Your task to perform on an android device: Go to privacy settings Image 0: 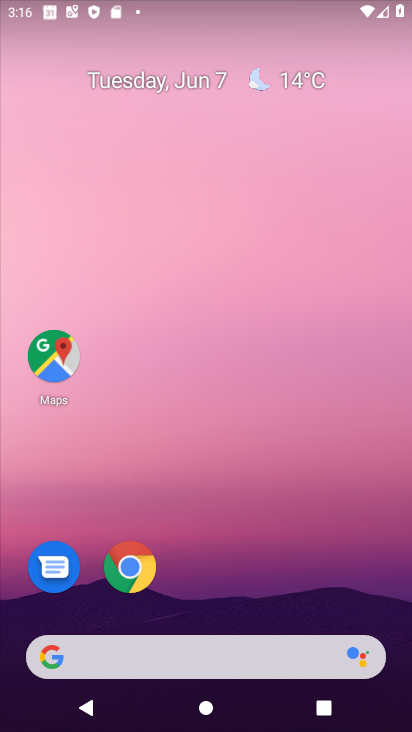
Step 0: drag from (196, 607) to (190, 241)
Your task to perform on an android device: Go to privacy settings Image 1: 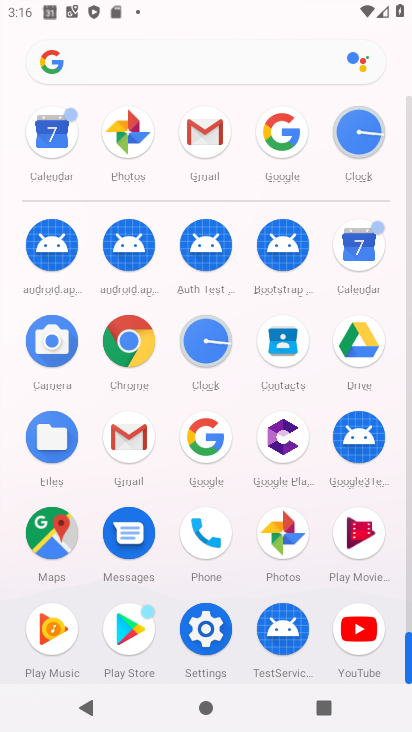
Step 1: click (202, 612)
Your task to perform on an android device: Go to privacy settings Image 2: 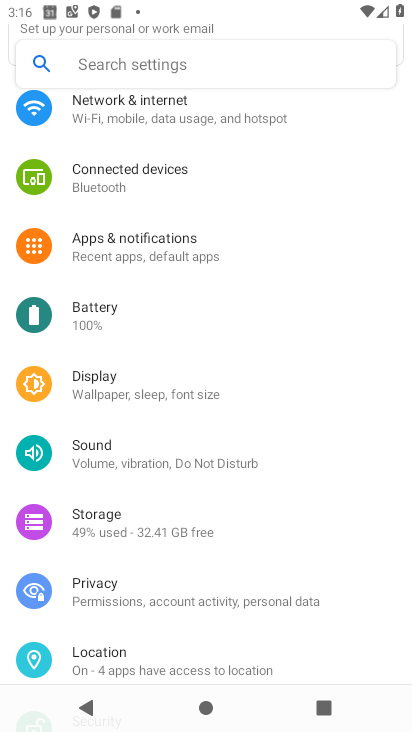
Step 2: click (119, 582)
Your task to perform on an android device: Go to privacy settings Image 3: 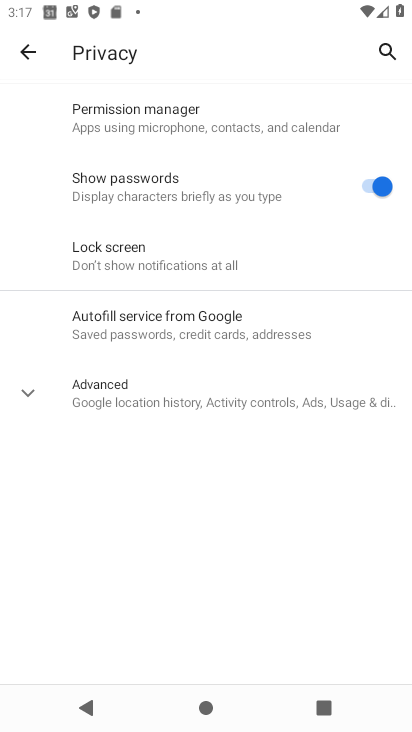
Step 3: task complete